Your task to perform on an android device: change text size in settings app Image 0: 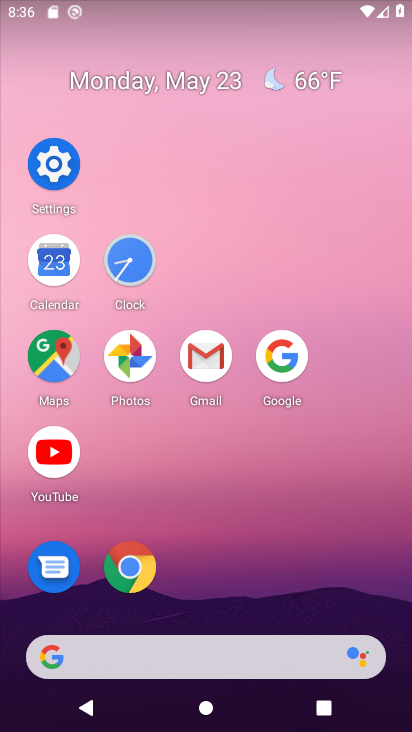
Step 0: click (81, 168)
Your task to perform on an android device: change text size in settings app Image 1: 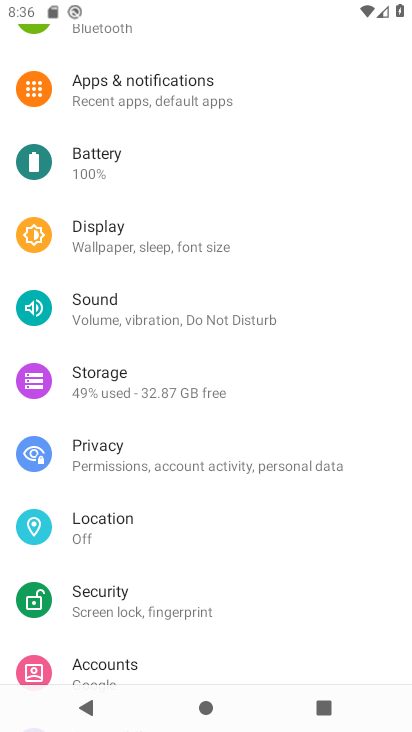
Step 1: click (188, 250)
Your task to perform on an android device: change text size in settings app Image 2: 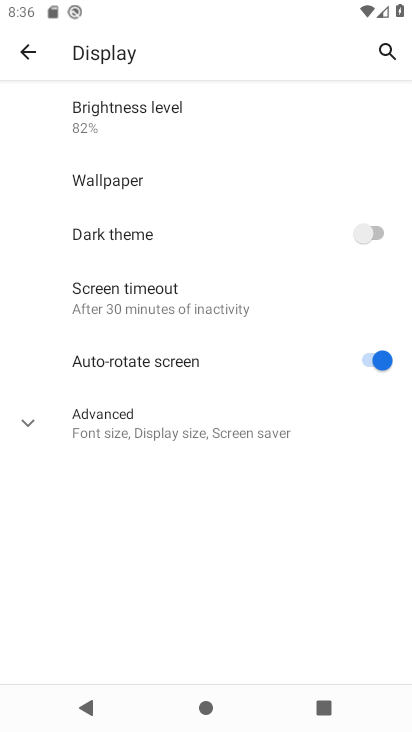
Step 2: click (182, 429)
Your task to perform on an android device: change text size in settings app Image 3: 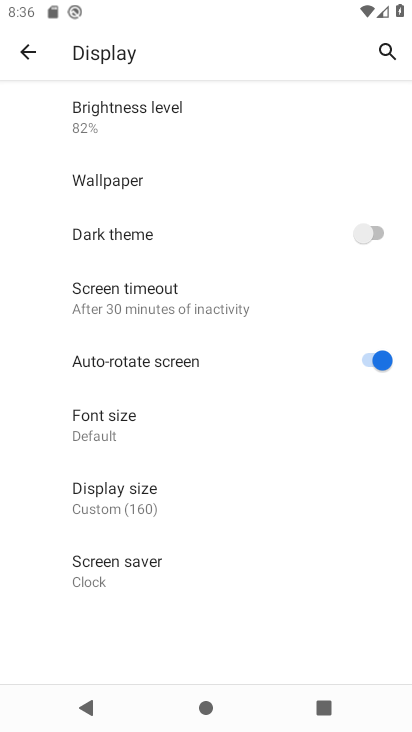
Step 3: click (173, 430)
Your task to perform on an android device: change text size in settings app Image 4: 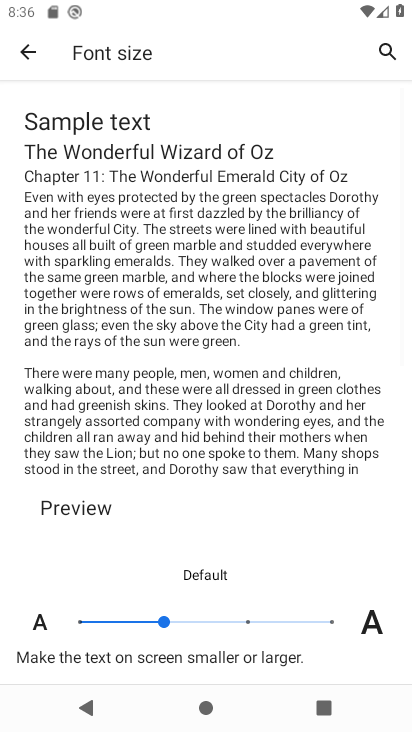
Step 4: click (244, 617)
Your task to perform on an android device: change text size in settings app Image 5: 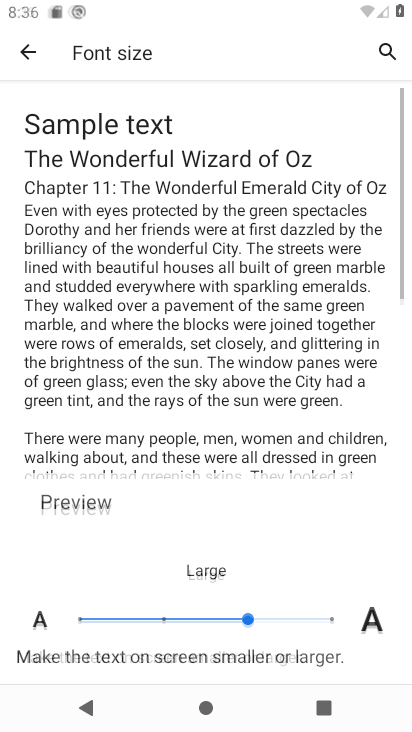
Step 5: task complete